Your task to perform on an android device: set default search engine in the chrome app Image 0: 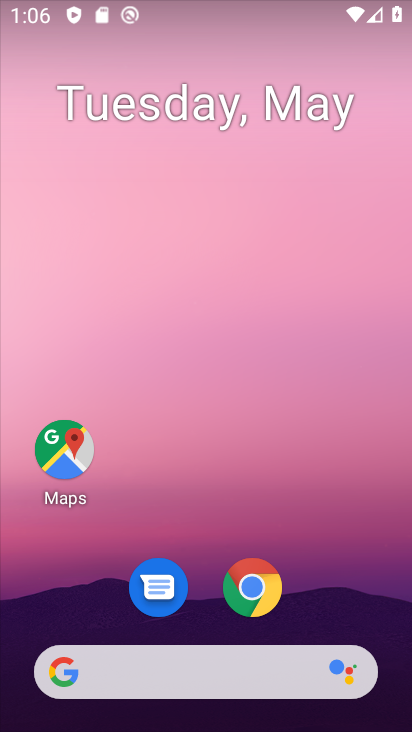
Step 0: drag from (193, 623) to (209, 291)
Your task to perform on an android device: set default search engine in the chrome app Image 1: 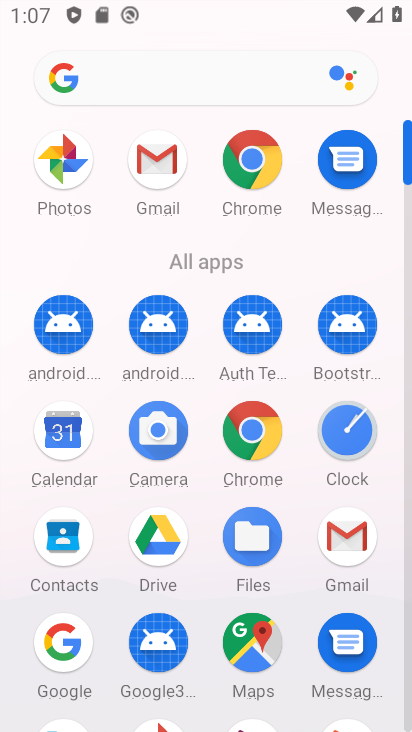
Step 1: click (257, 439)
Your task to perform on an android device: set default search engine in the chrome app Image 2: 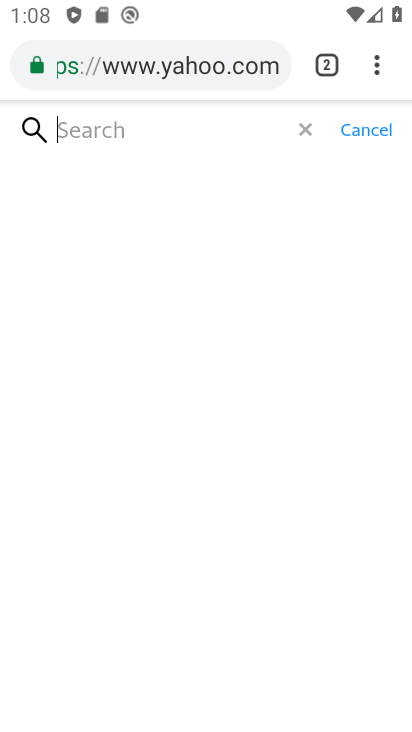
Step 2: drag from (384, 54) to (153, 639)
Your task to perform on an android device: set default search engine in the chrome app Image 3: 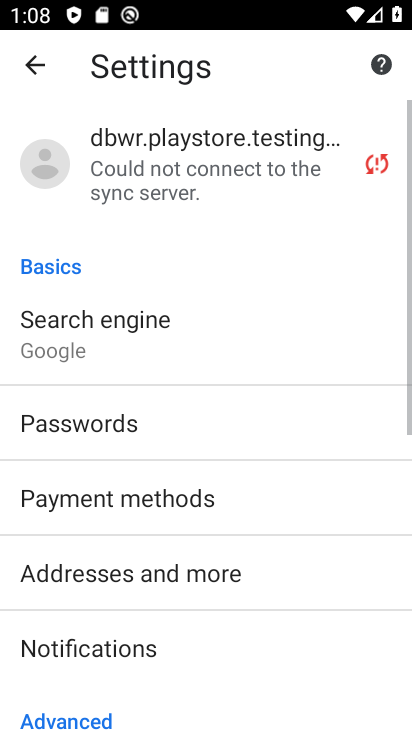
Step 3: drag from (151, 572) to (222, 117)
Your task to perform on an android device: set default search engine in the chrome app Image 4: 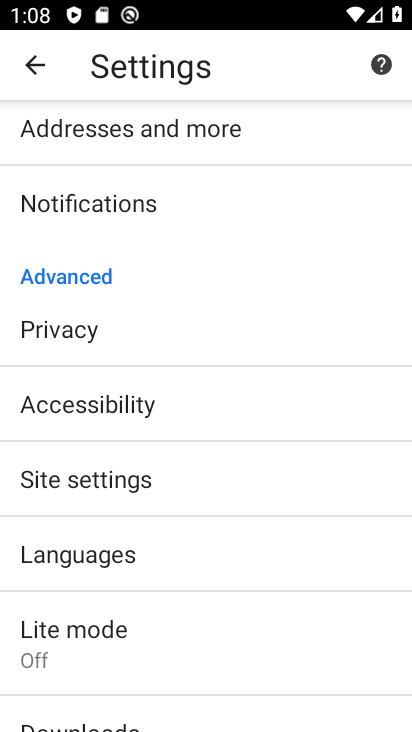
Step 4: drag from (181, 645) to (286, 296)
Your task to perform on an android device: set default search engine in the chrome app Image 5: 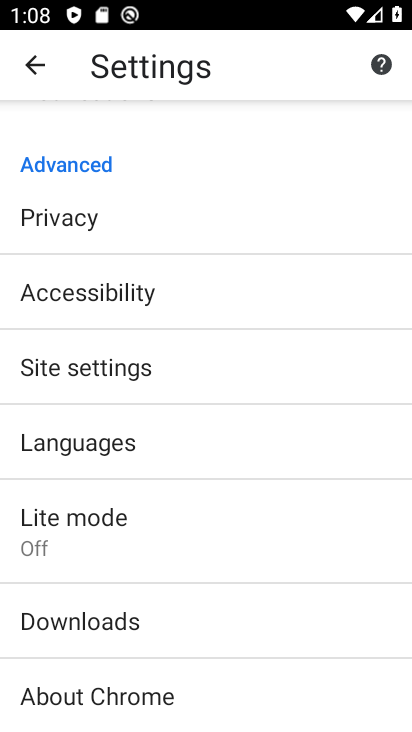
Step 5: click (171, 344)
Your task to perform on an android device: set default search engine in the chrome app Image 6: 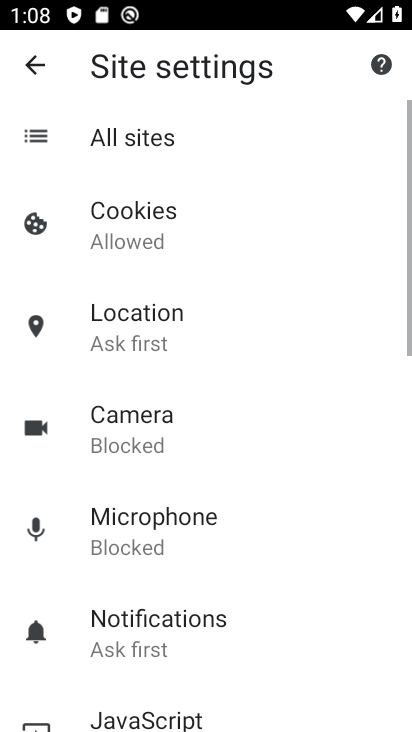
Step 6: click (44, 81)
Your task to perform on an android device: set default search engine in the chrome app Image 7: 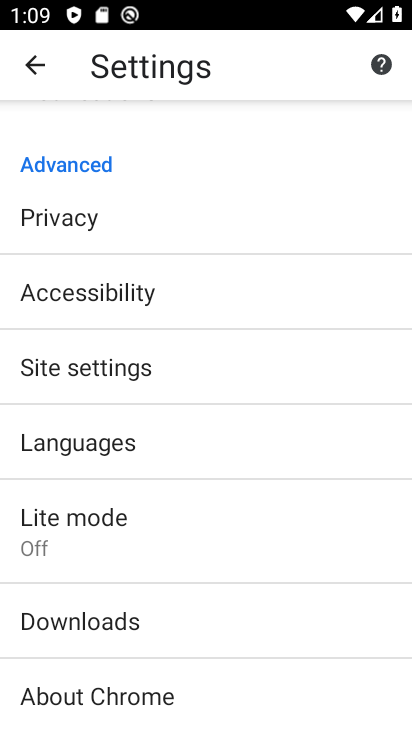
Step 7: drag from (208, 267) to (248, 725)
Your task to perform on an android device: set default search engine in the chrome app Image 8: 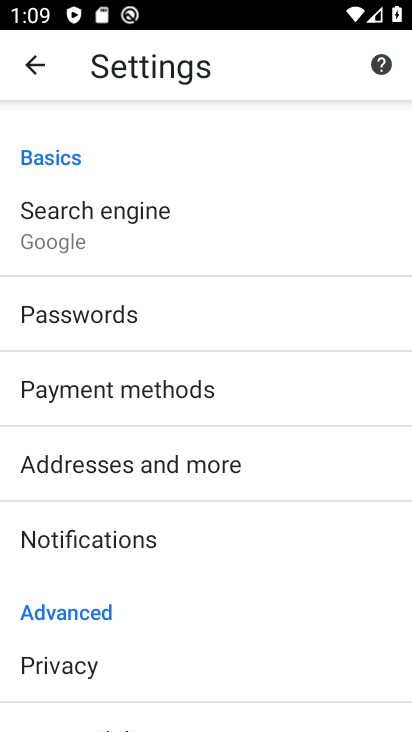
Step 8: click (119, 247)
Your task to perform on an android device: set default search engine in the chrome app Image 9: 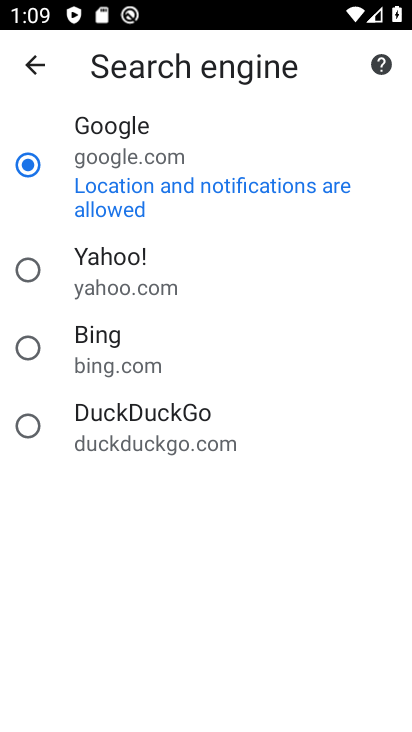
Step 9: task complete